Your task to perform on an android device: change the clock display to show seconds Image 0: 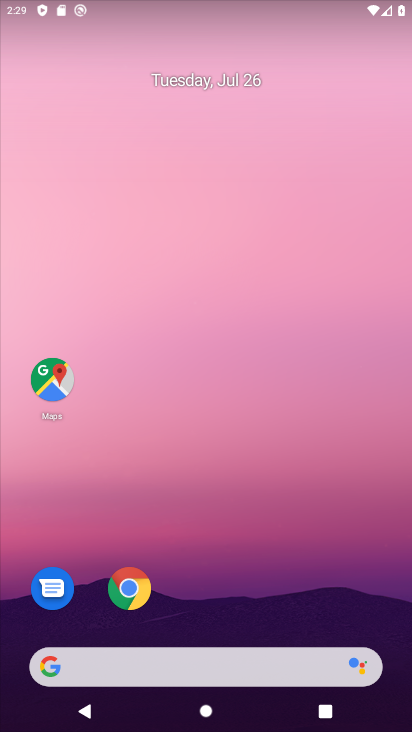
Step 0: drag from (318, 569) to (322, 148)
Your task to perform on an android device: change the clock display to show seconds Image 1: 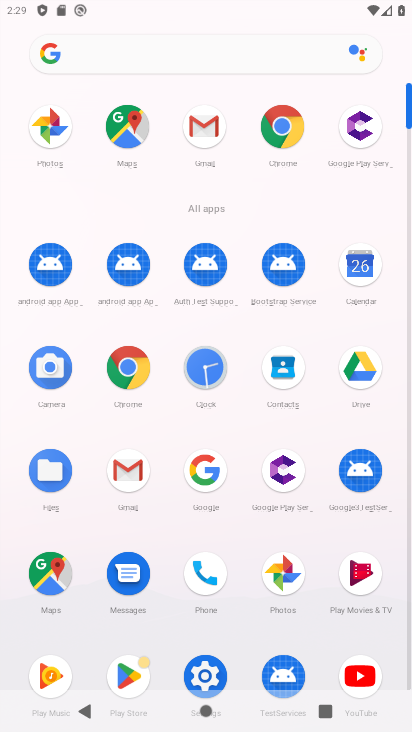
Step 1: click (216, 380)
Your task to perform on an android device: change the clock display to show seconds Image 2: 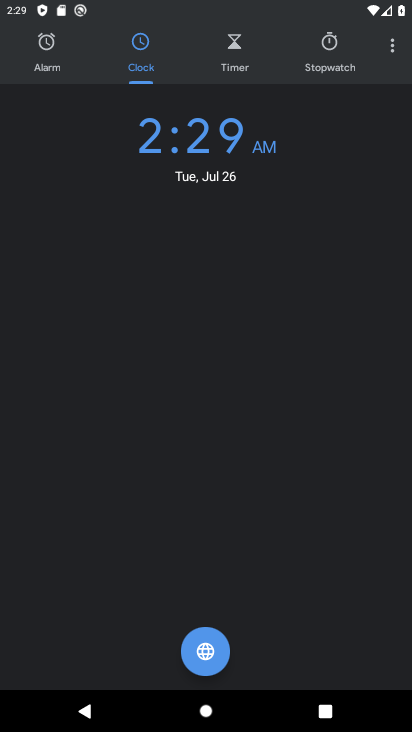
Step 2: click (390, 57)
Your task to perform on an android device: change the clock display to show seconds Image 3: 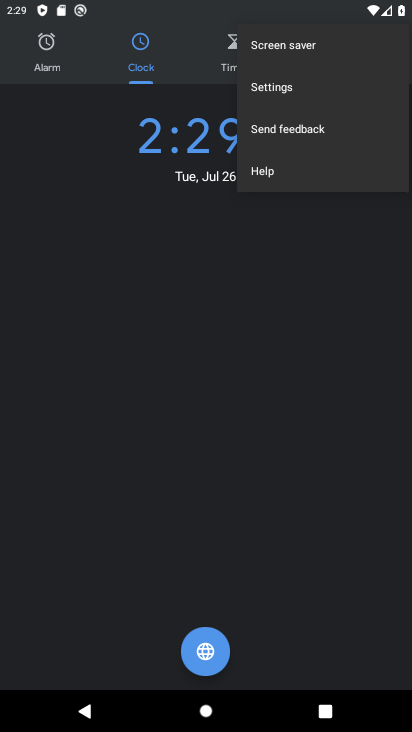
Step 3: click (281, 92)
Your task to perform on an android device: change the clock display to show seconds Image 4: 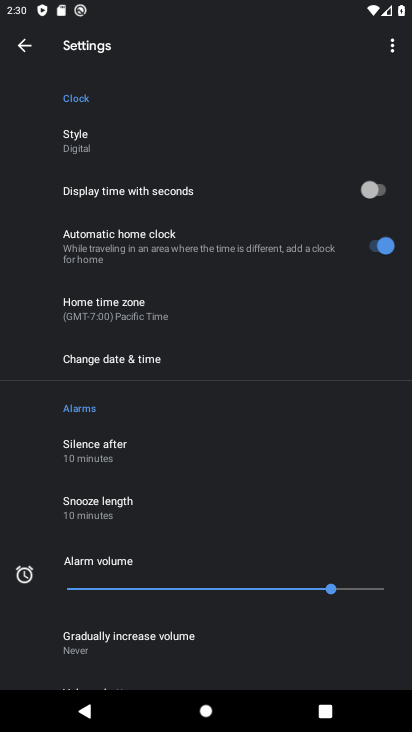
Step 4: click (372, 188)
Your task to perform on an android device: change the clock display to show seconds Image 5: 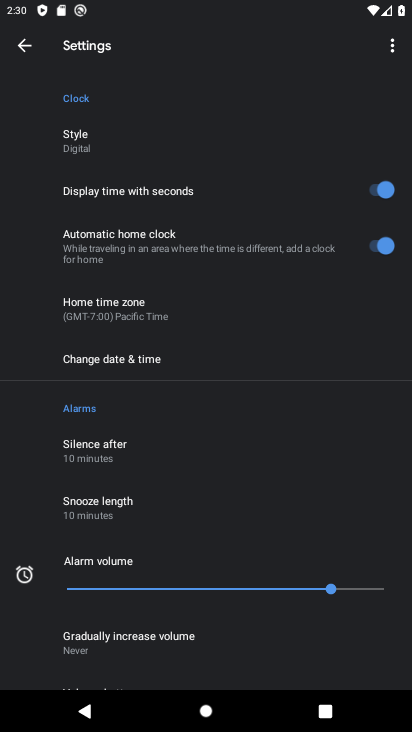
Step 5: task complete